Your task to perform on an android device: Open Reddit.com Image 0: 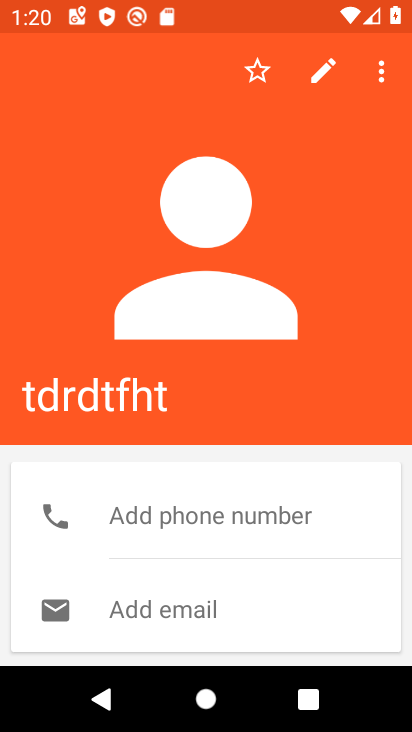
Step 0: press home button
Your task to perform on an android device: Open Reddit.com Image 1: 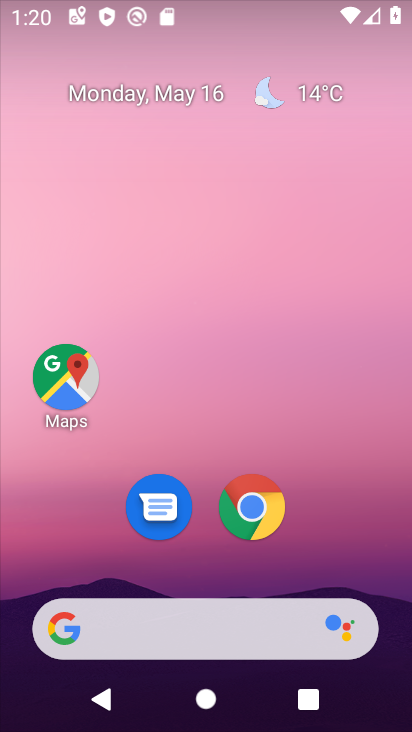
Step 1: drag from (346, 510) to (336, 223)
Your task to perform on an android device: Open Reddit.com Image 2: 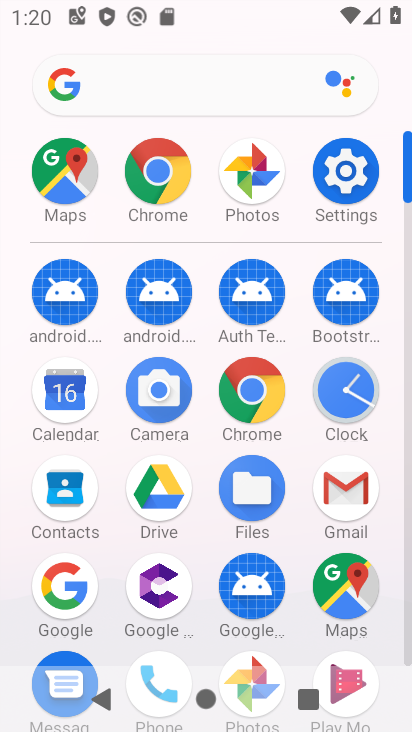
Step 2: click (260, 410)
Your task to perform on an android device: Open Reddit.com Image 3: 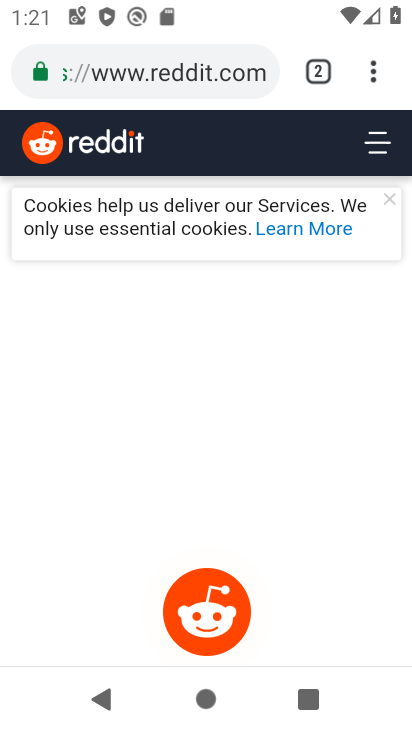
Step 3: task complete